Your task to perform on an android device: turn on improve location accuracy Image 0: 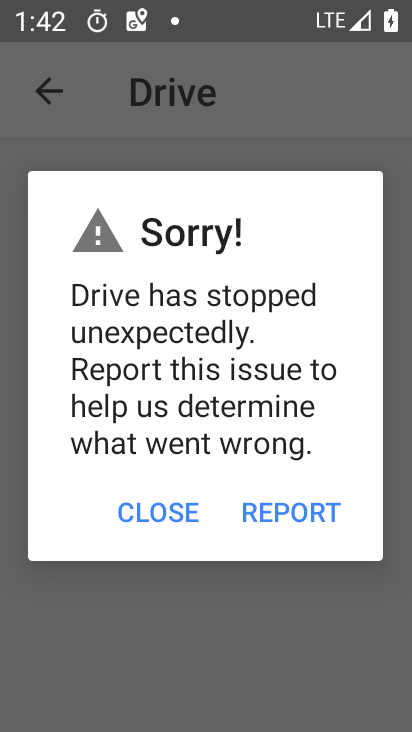
Step 0: press home button
Your task to perform on an android device: turn on improve location accuracy Image 1: 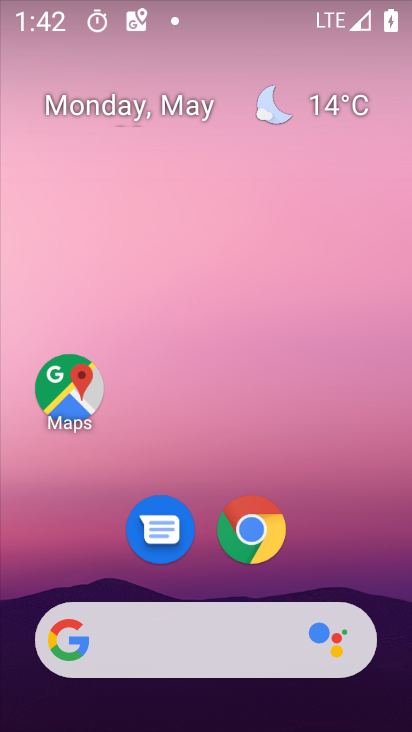
Step 1: drag from (385, 569) to (370, 135)
Your task to perform on an android device: turn on improve location accuracy Image 2: 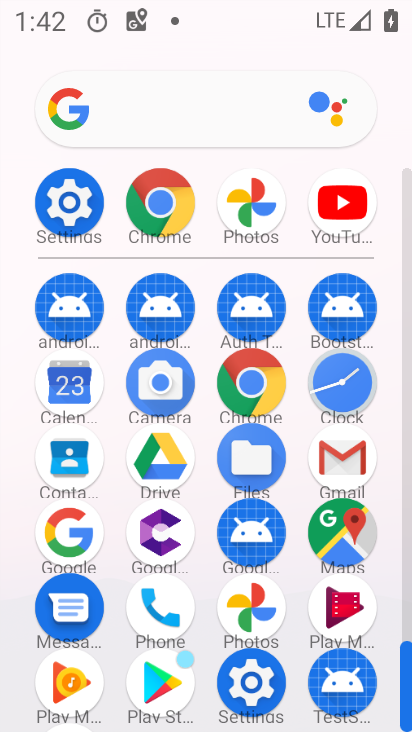
Step 2: drag from (380, 599) to (378, 362)
Your task to perform on an android device: turn on improve location accuracy Image 3: 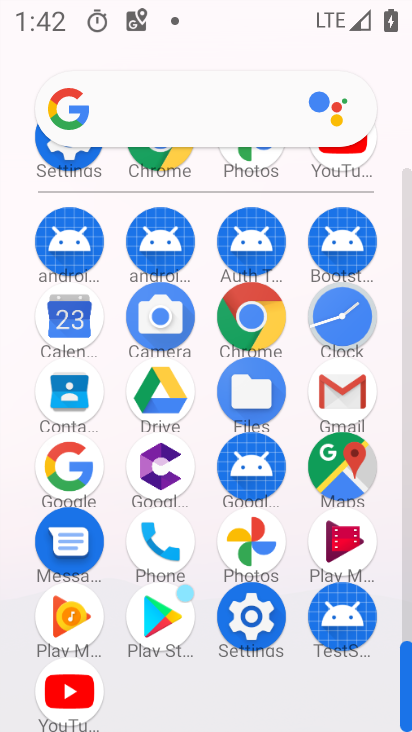
Step 3: click (240, 635)
Your task to perform on an android device: turn on improve location accuracy Image 4: 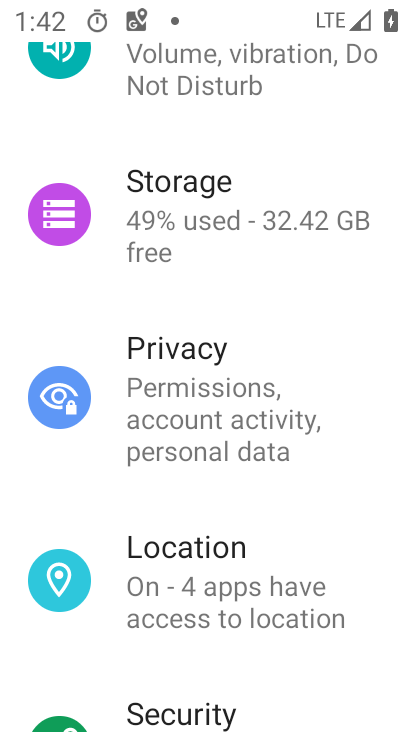
Step 4: drag from (352, 380) to (360, 543)
Your task to perform on an android device: turn on improve location accuracy Image 5: 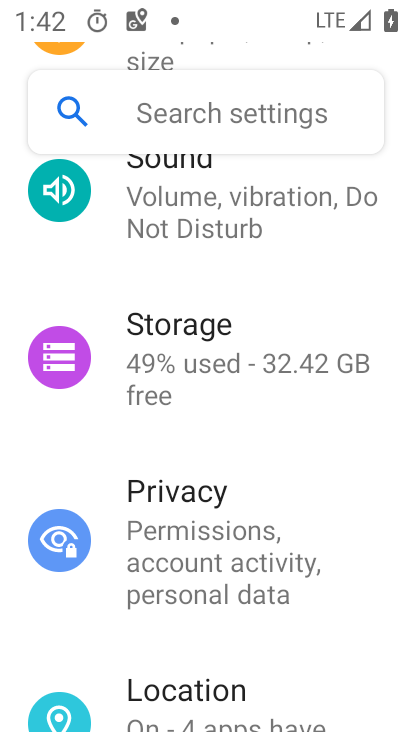
Step 5: drag from (357, 299) to (378, 427)
Your task to perform on an android device: turn on improve location accuracy Image 6: 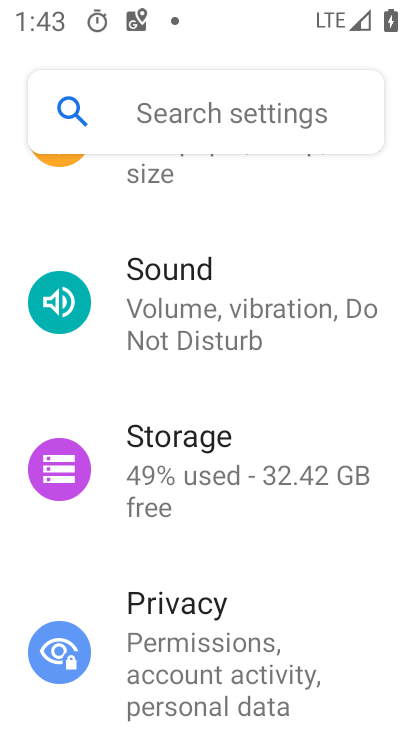
Step 6: drag from (386, 312) to (389, 369)
Your task to perform on an android device: turn on improve location accuracy Image 7: 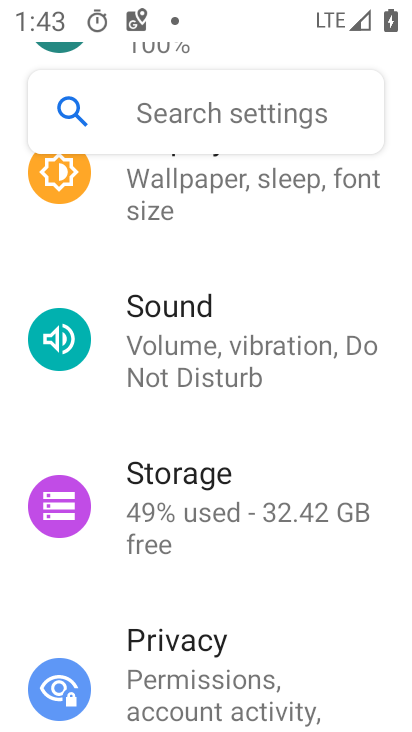
Step 7: drag from (373, 228) to (377, 378)
Your task to perform on an android device: turn on improve location accuracy Image 8: 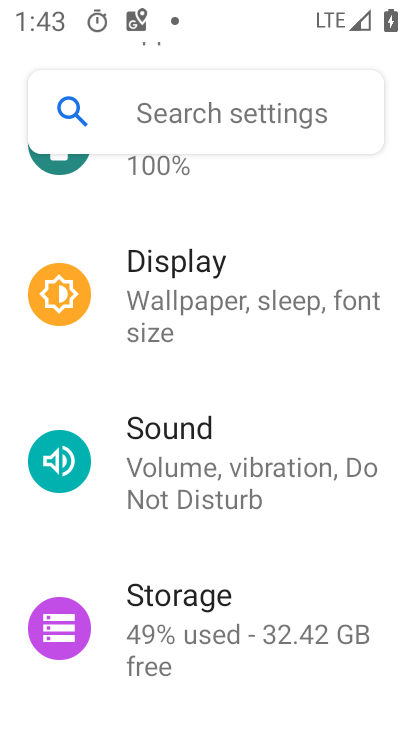
Step 8: drag from (379, 204) to (373, 392)
Your task to perform on an android device: turn on improve location accuracy Image 9: 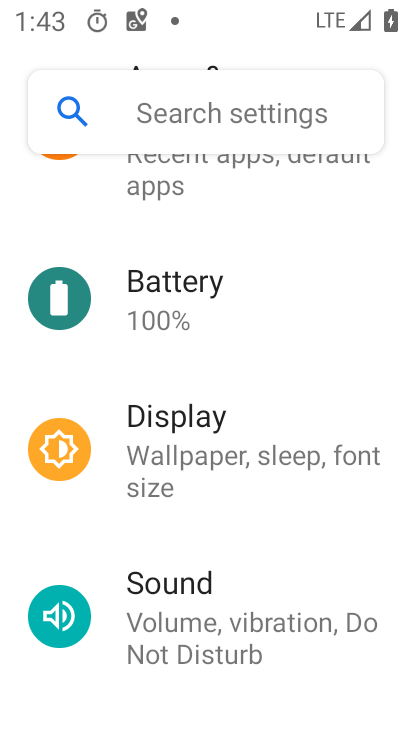
Step 9: drag from (367, 288) to (354, 493)
Your task to perform on an android device: turn on improve location accuracy Image 10: 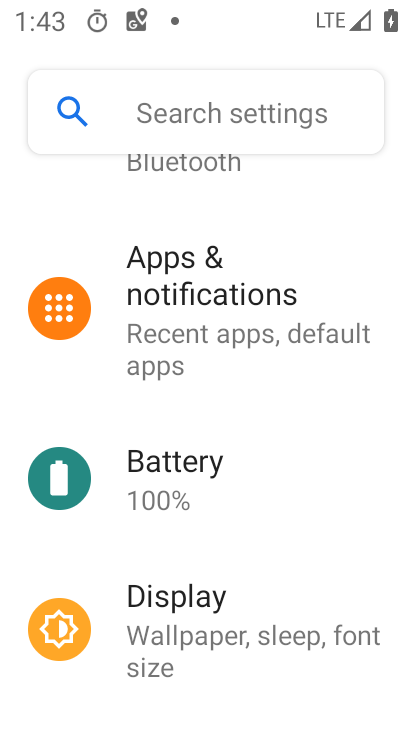
Step 10: drag from (334, 239) to (340, 403)
Your task to perform on an android device: turn on improve location accuracy Image 11: 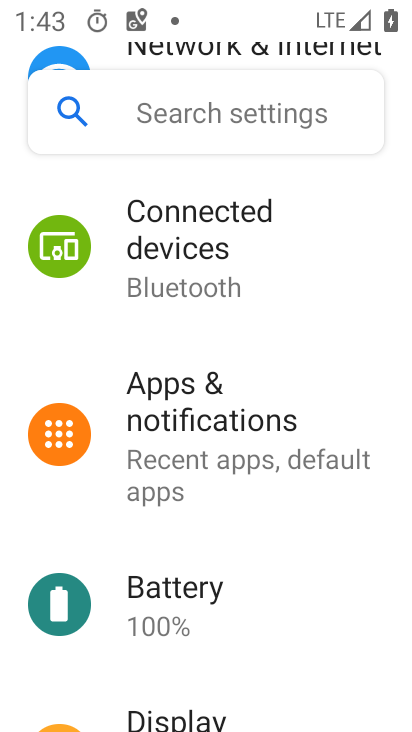
Step 11: drag from (331, 213) to (330, 415)
Your task to perform on an android device: turn on improve location accuracy Image 12: 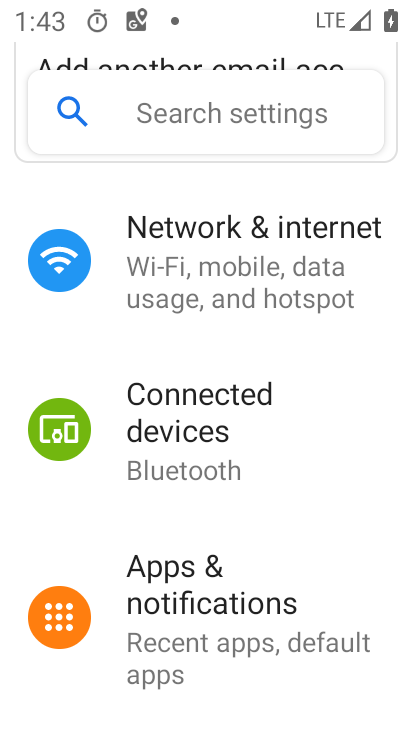
Step 12: drag from (334, 457) to (344, 329)
Your task to perform on an android device: turn on improve location accuracy Image 13: 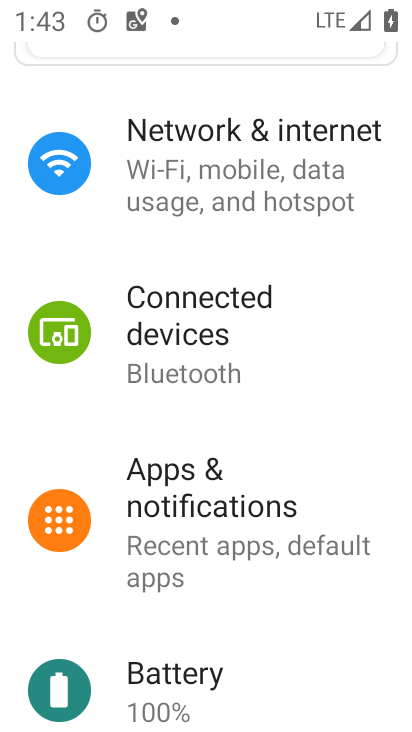
Step 13: drag from (358, 491) to (361, 357)
Your task to perform on an android device: turn on improve location accuracy Image 14: 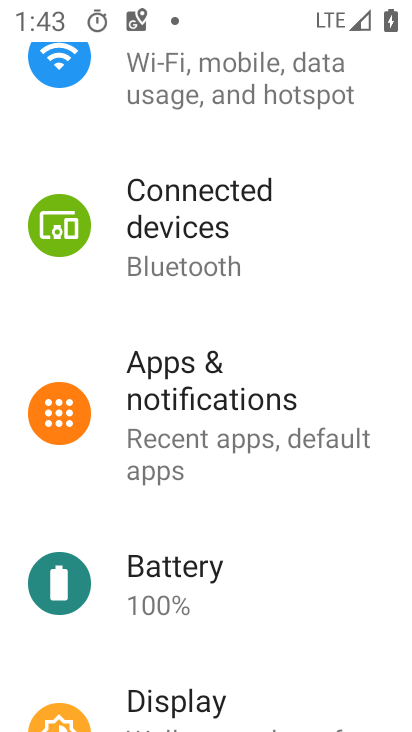
Step 14: drag from (335, 541) to (322, 388)
Your task to perform on an android device: turn on improve location accuracy Image 15: 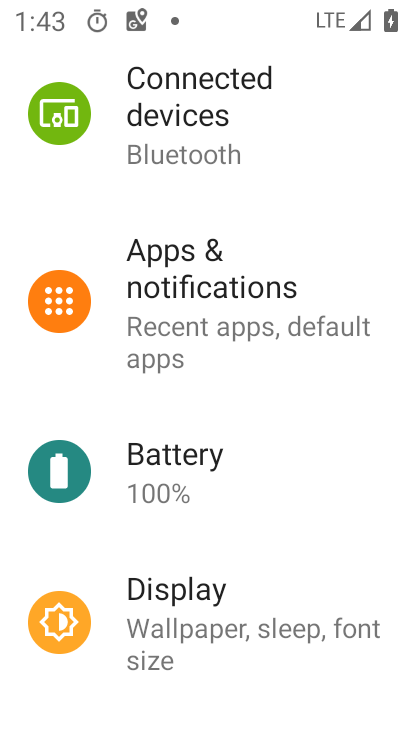
Step 15: drag from (323, 541) to (313, 387)
Your task to perform on an android device: turn on improve location accuracy Image 16: 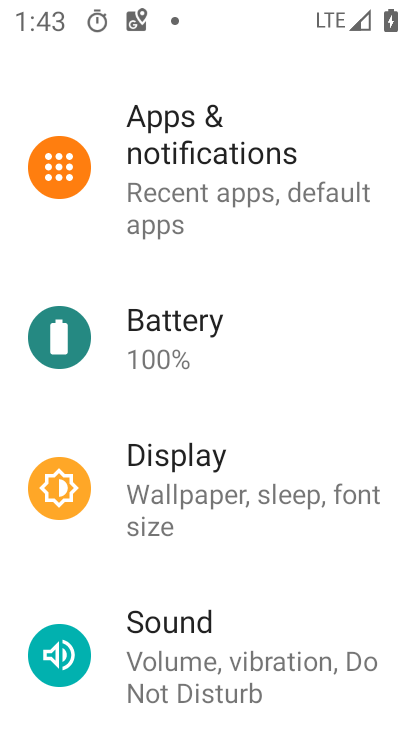
Step 16: drag from (322, 574) to (327, 441)
Your task to perform on an android device: turn on improve location accuracy Image 17: 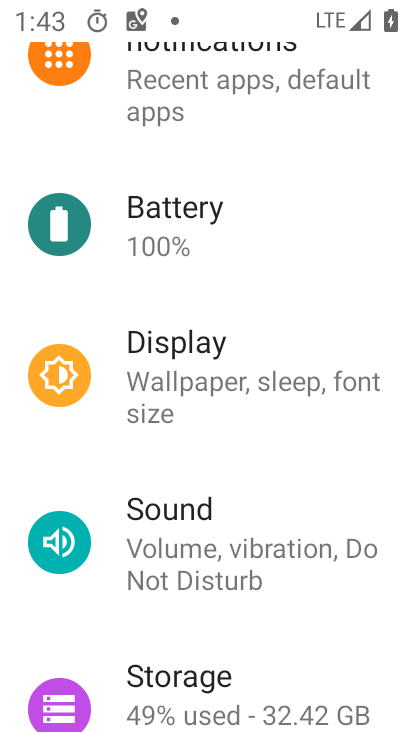
Step 17: drag from (309, 643) to (331, 488)
Your task to perform on an android device: turn on improve location accuracy Image 18: 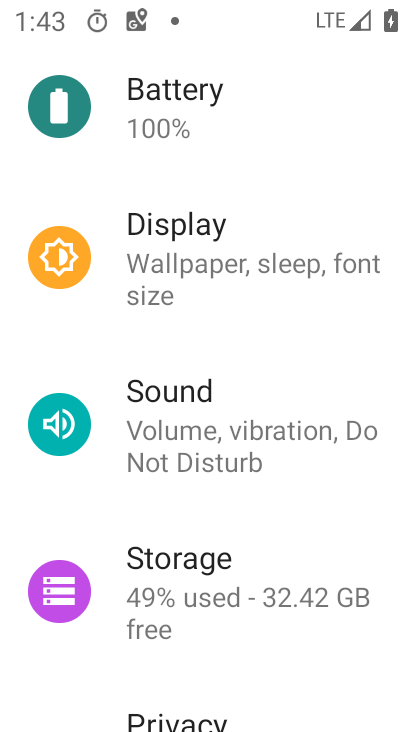
Step 18: drag from (347, 640) to (329, 522)
Your task to perform on an android device: turn on improve location accuracy Image 19: 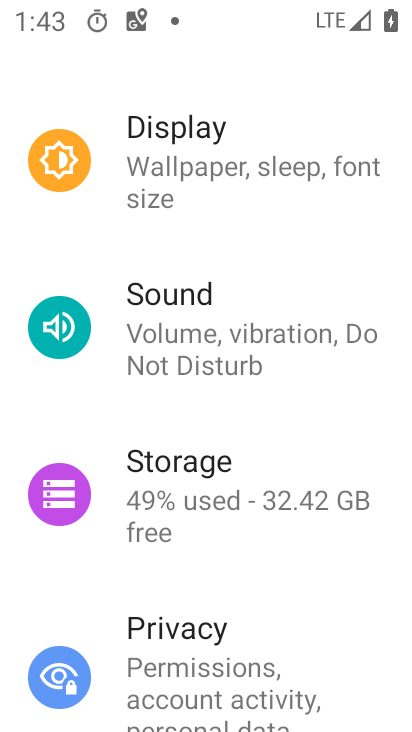
Step 19: drag from (349, 664) to (344, 472)
Your task to perform on an android device: turn on improve location accuracy Image 20: 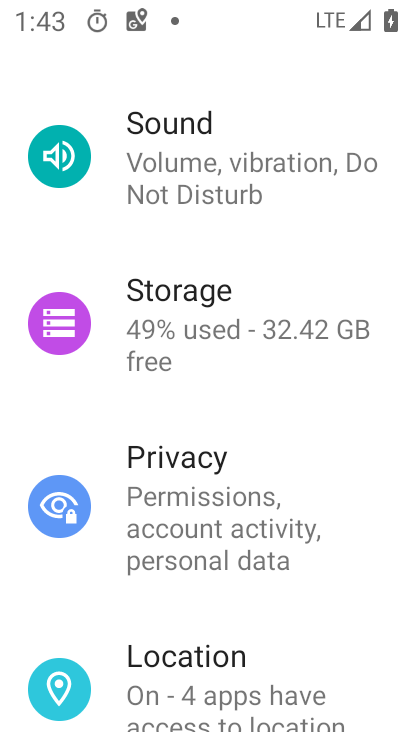
Step 20: drag from (351, 638) to (348, 469)
Your task to perform on an android device: turn on improve location accuracy Image 21: 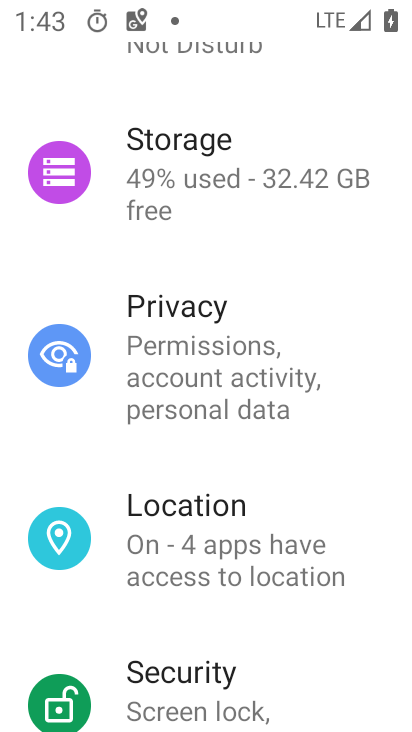
Step 21: click (259, 559)
Your task to perform on an android device: turn on improve location accuracy Image 22: 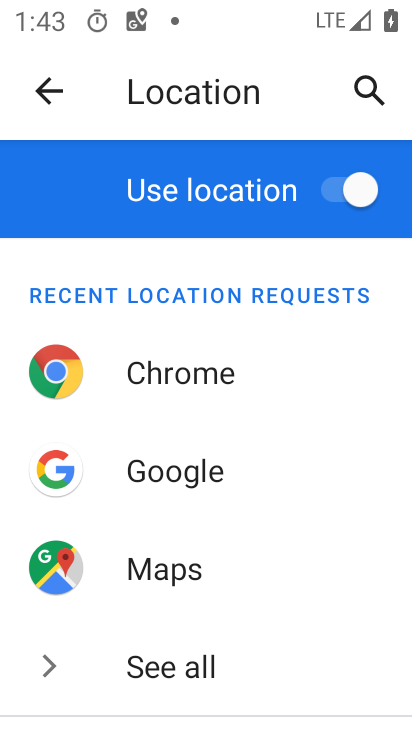
Step 22: drag from (341, 638) to (337, 482)
Your task to perform on an android device: turn on improve location accuracy Image 23: 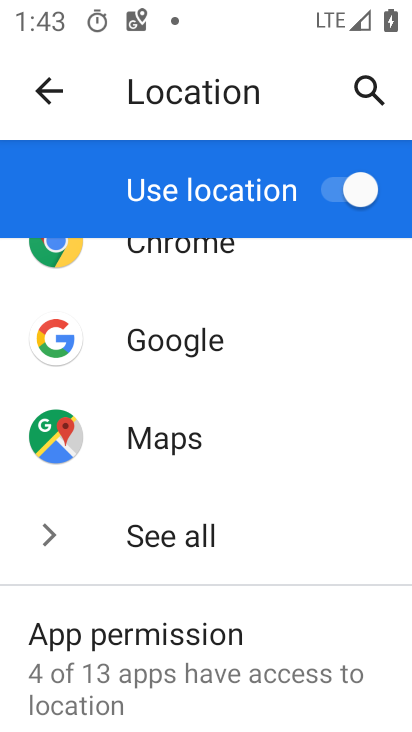
Step 23: drag from (337, 651) to (339, 516)
Your task to perform on an android device: turn on improve location accuracy Image 24: 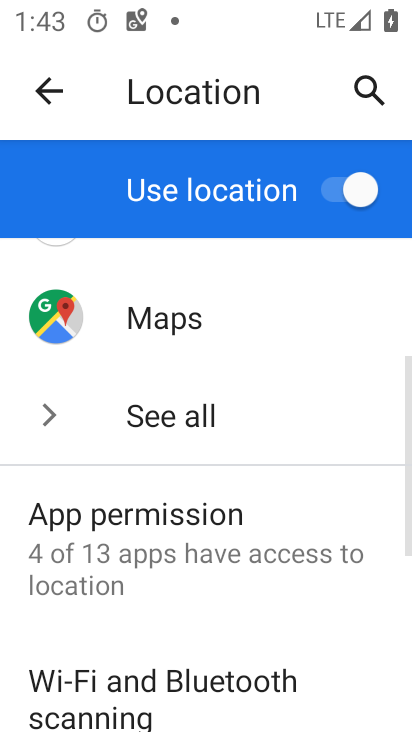
Step 24: drag from (331, 631) to (331, 483)
Your task to perform on an android device: turn on improve location accuracy Image 25: 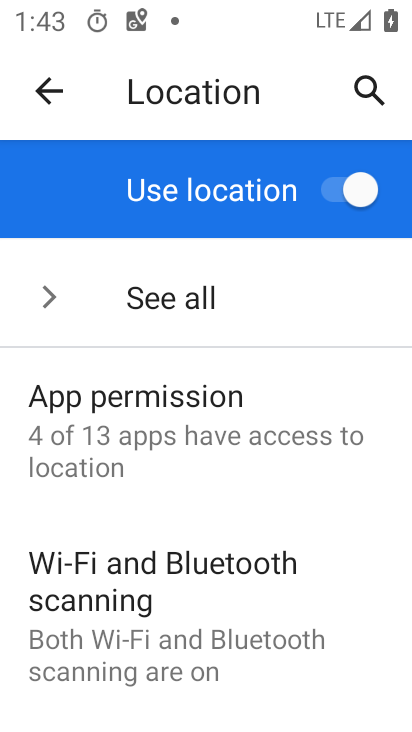
Step 25: drag from (356, 636) to (364, 519)
Your task to perform on an android device: turn on improve location accuracy Image 26: 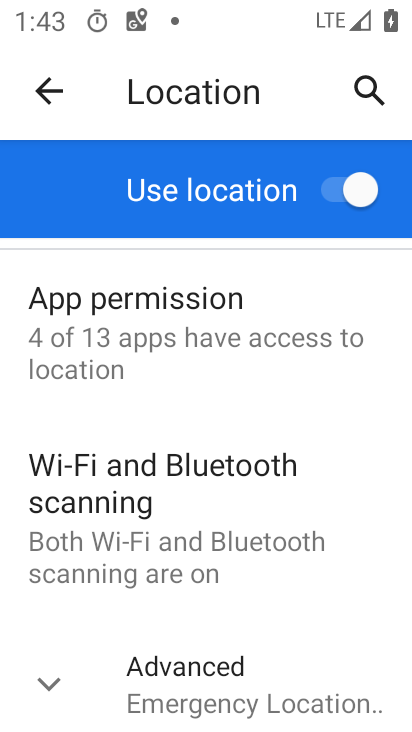
Step 26: drag from (344, 659) to (333, 505)
Your task to perform on an android device: turn on improve location accuracy Image 27: 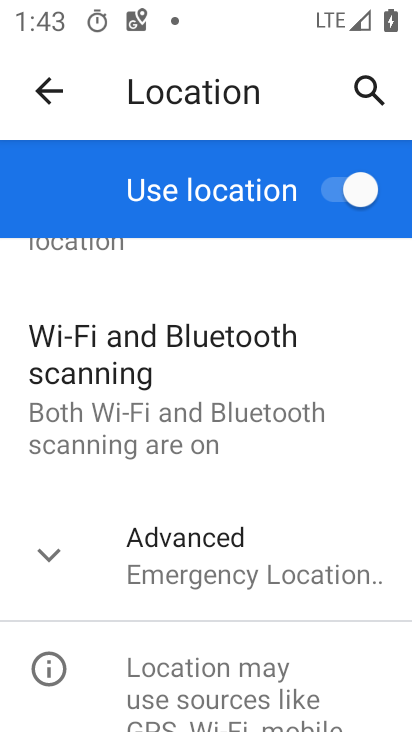
Step 27: drag from (338, 652) to (340, 525)
Your task to perform on an android device: turn on improve location accuracy Image 28: 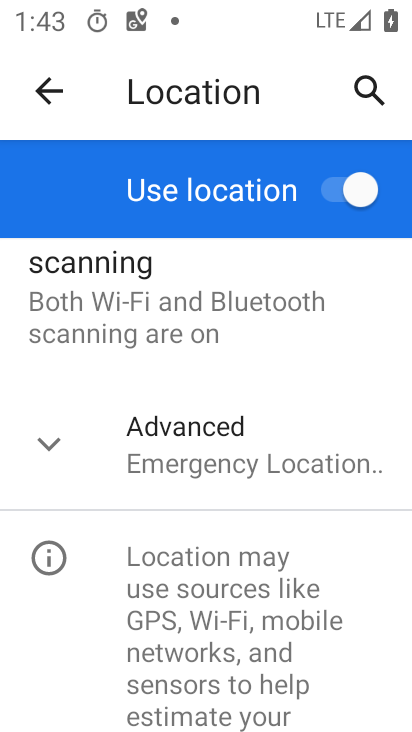
Step 28: click (342, 478)
Your task to perform on an android device: turn on improve location accuracy Image 29: 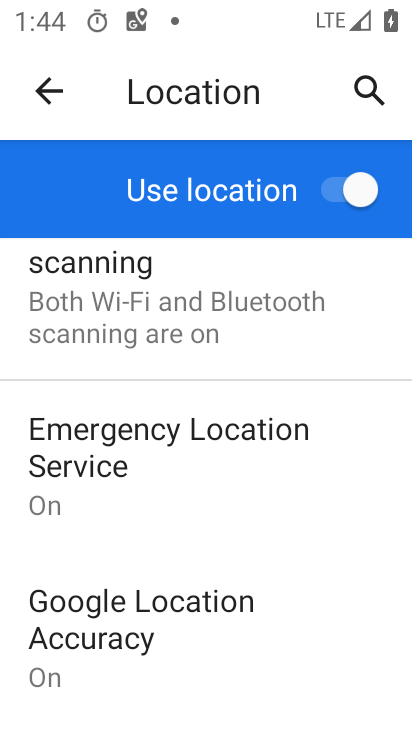
Step 29: drag from (347, 635) to (344, 520)
Your task to perform on an android device: turn on improve location accuracy Image 30: 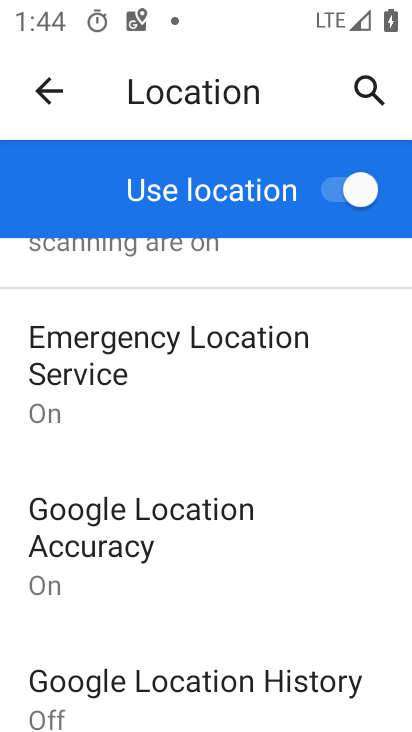
Step 30: click (183, 548)
Your task to perform on an android device: turn on improve location accuracy Image 31: 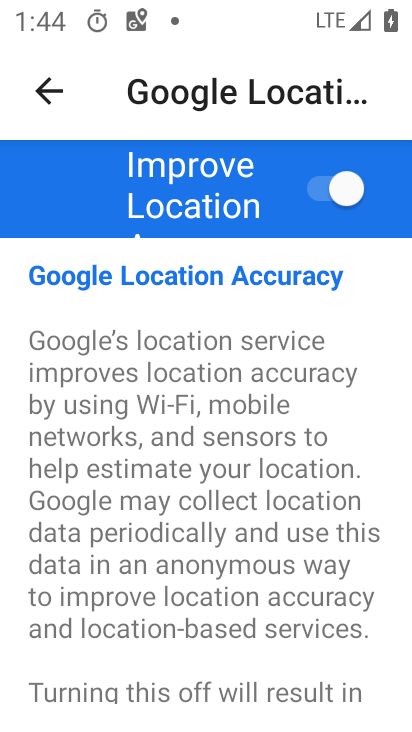
Step 31: task complete